Your task to perform on an android device: Set the phone to "Do not disturb". Image 0: 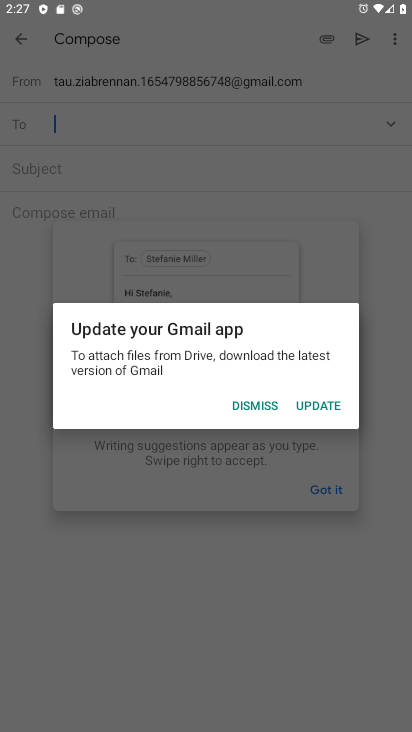
Step 0: press home button
Your task to perform on an android device: Set the phone to "Do not disturb". Image 1: 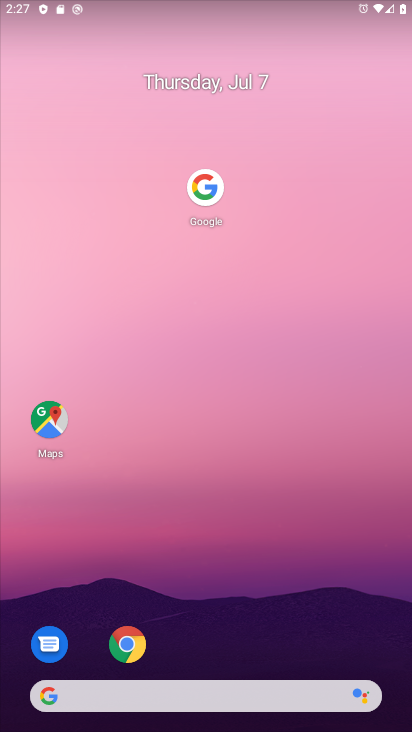
Step 1: drag from (244, 415) to (267, 100)
Your task to perform on an android device: Set the phone to "Do not disturb". Image 2: 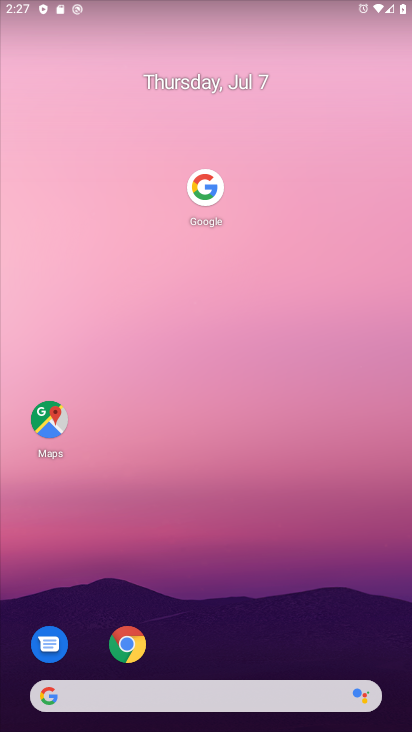
Step 2: drag from (212, 600) to (285, 63)
Your task to perform on an android device: Set the phone to "Do not disturb". Image 3: 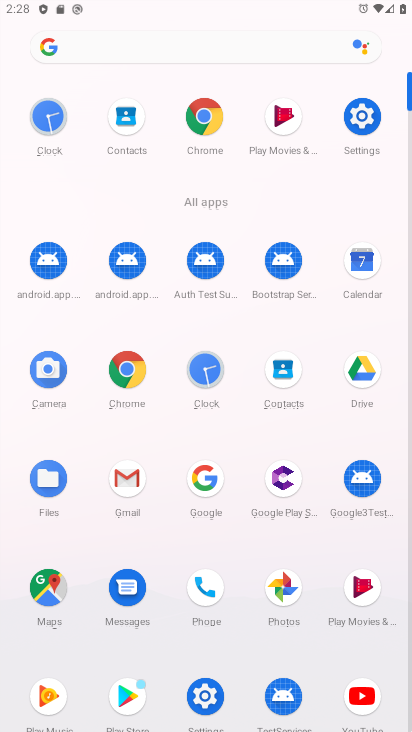
Step 3: click (358, 114)
Your task to perform on an android device: Set the phone to "Do not disturb". Image 4: 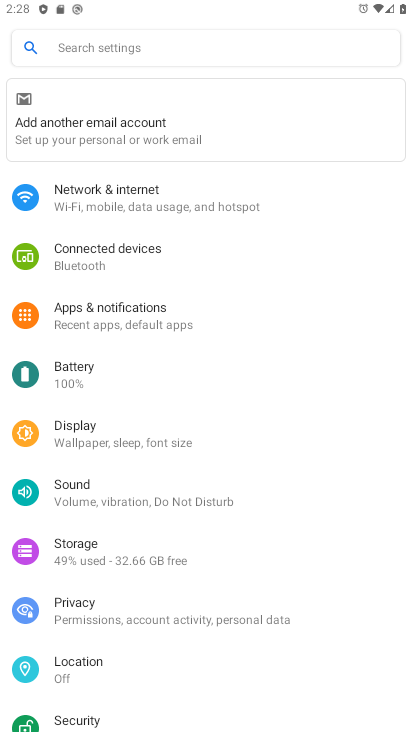
Step 4: click (122, 502)
Your task to perform on an android device: Set the phone to "Do not disturb". Image 5: 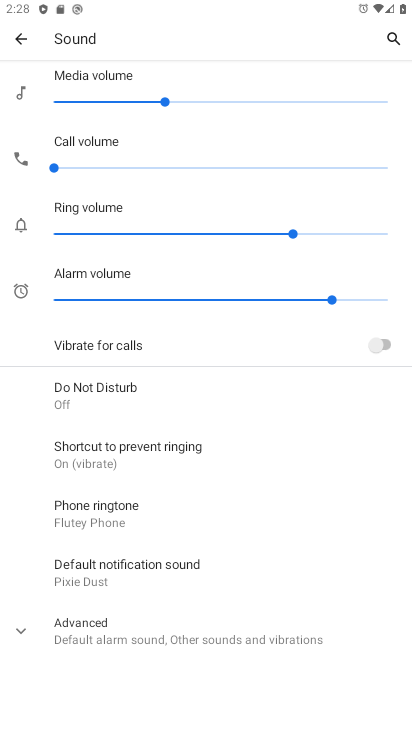
Step 5: click (77, 490)
Your task to perform on an android device: Set the phone to "Do not disturb". Image 6: 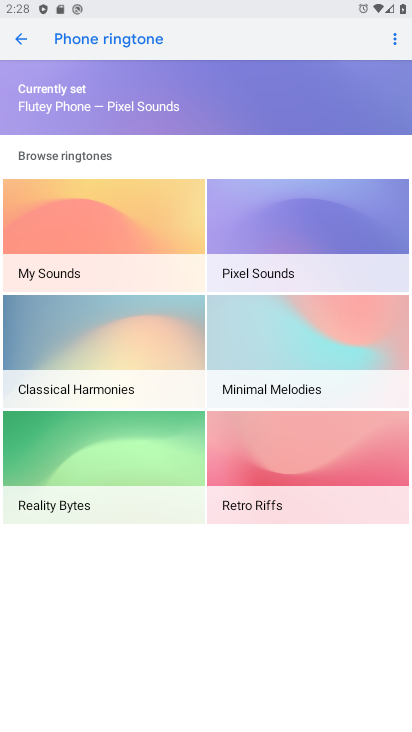
Step 6: click (25, 38)
Your task to perform on an android device: Set the phone to "Do not disturb". Image 7: 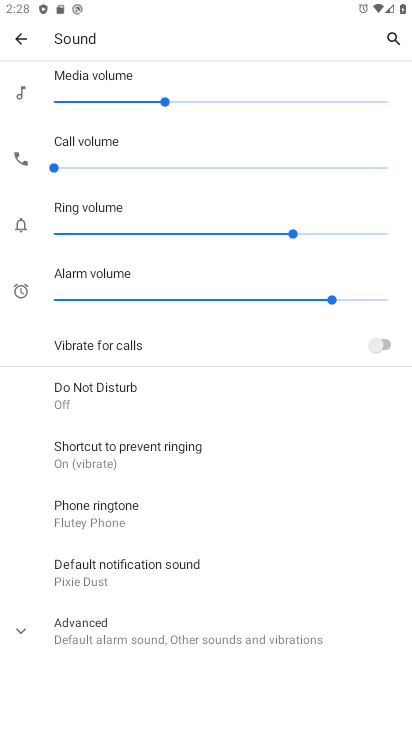
Step 7: click (124, 396)
Your task to perform on an android device: Set the phone to "Do not disturb". Image 8: 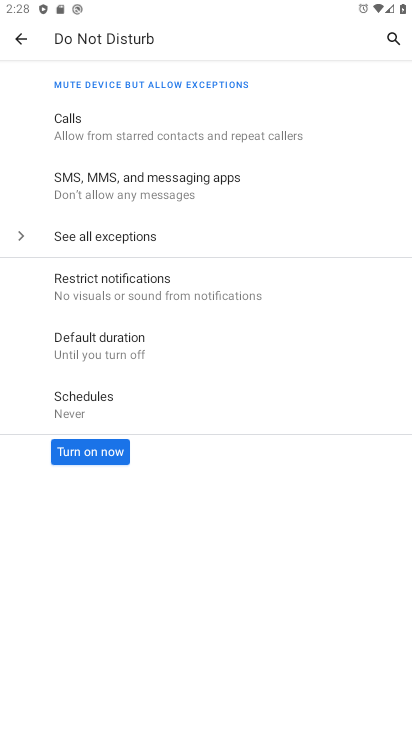
Step 8: click (101, 457)
Your task to perform on an android device: Set the phone to "Do not disturb". Image 9: 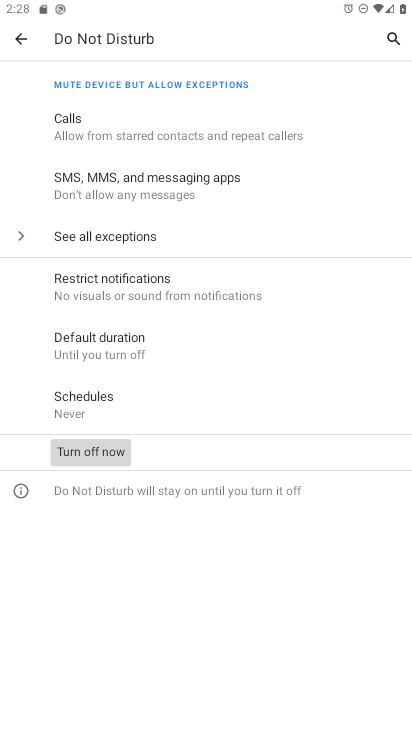
Step 9: task complete